Your task to perform on an android device: Open network settings Image 0: 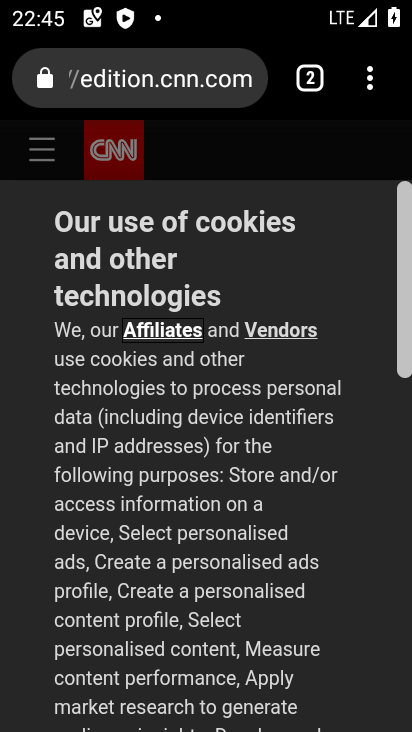
Step 0: press home button
Your task to perform on an android device: Open network settings Image 1: 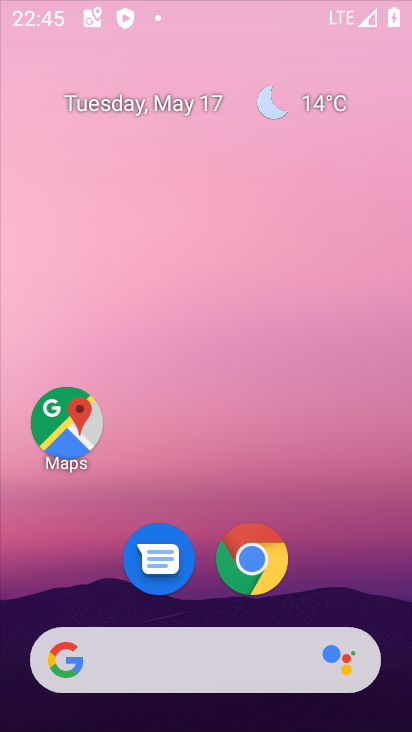
Step 1: drag from (318, 603) to (339, 213)
Your task to perform on an android device: Open network settings Image 2: 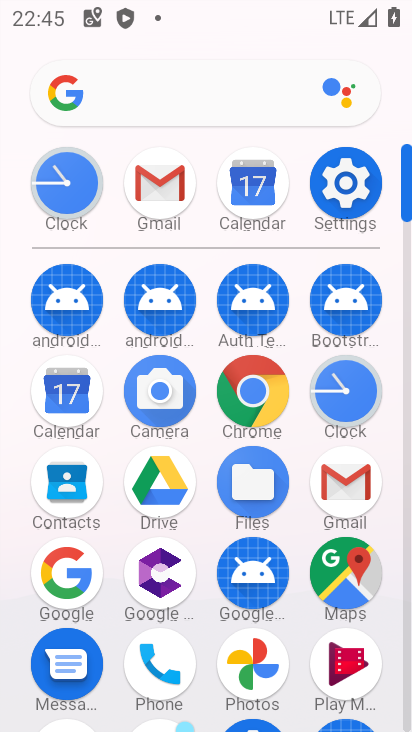
Step 2: click (346, 191)
Your task to perform on an android device: Open network settings Image 3: 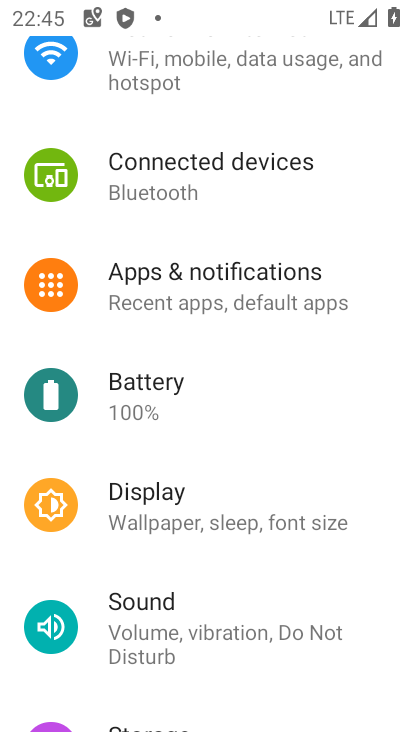
Step 3: drag from (268, 163) to (163, 648)
Your task to perform on an android device: Open network settings Image 4: 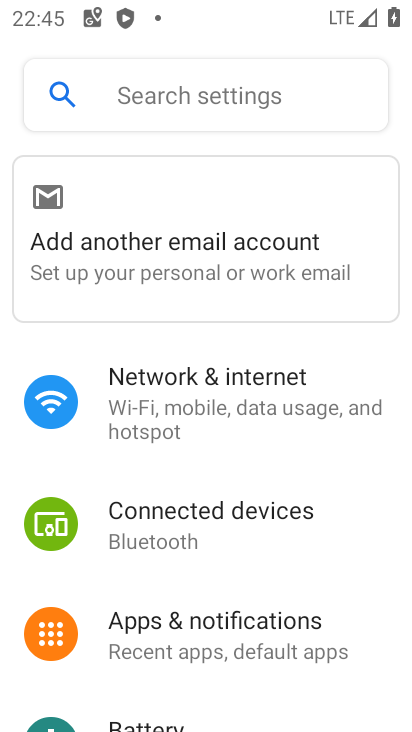
Step 4: click (181, 388)
Your task to perform on an android device: Open network settings Image 5: 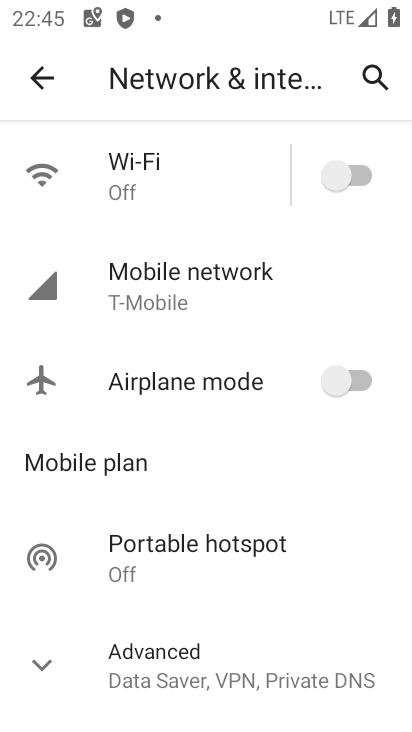
Step 5: click (236, 691)
Your task to perform on an android device: Open network settings Image 6: 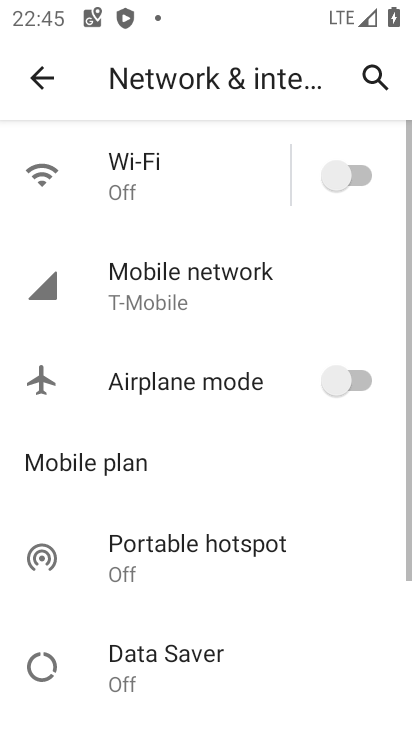
Step 6: task complete